Your task to perform on an android device: turn vacation reply on in the gmail app Image 0: 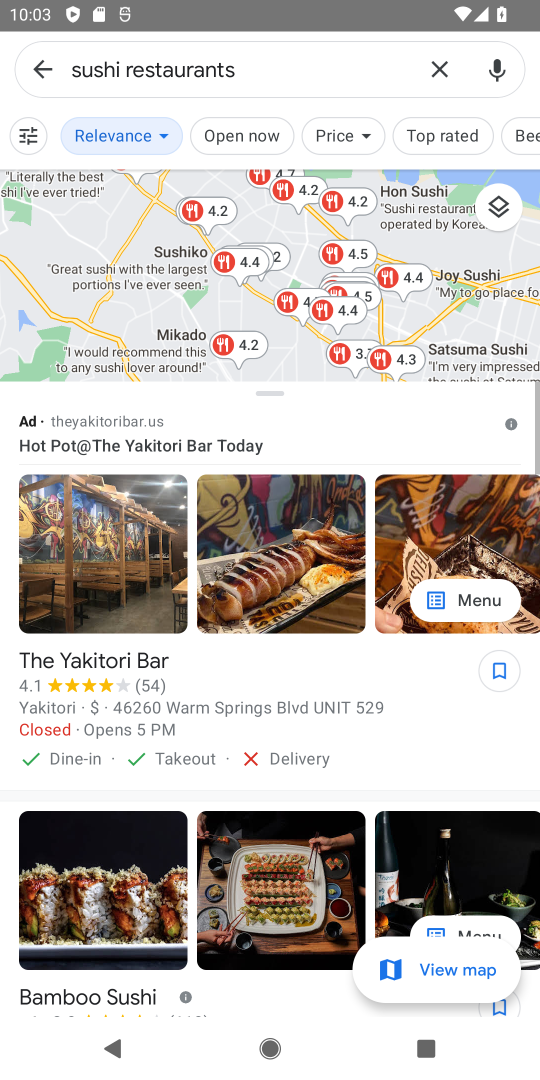
Step 0: press home button
Your task to perform on an android device: turn vacation reply on in the gmail app Image 1: 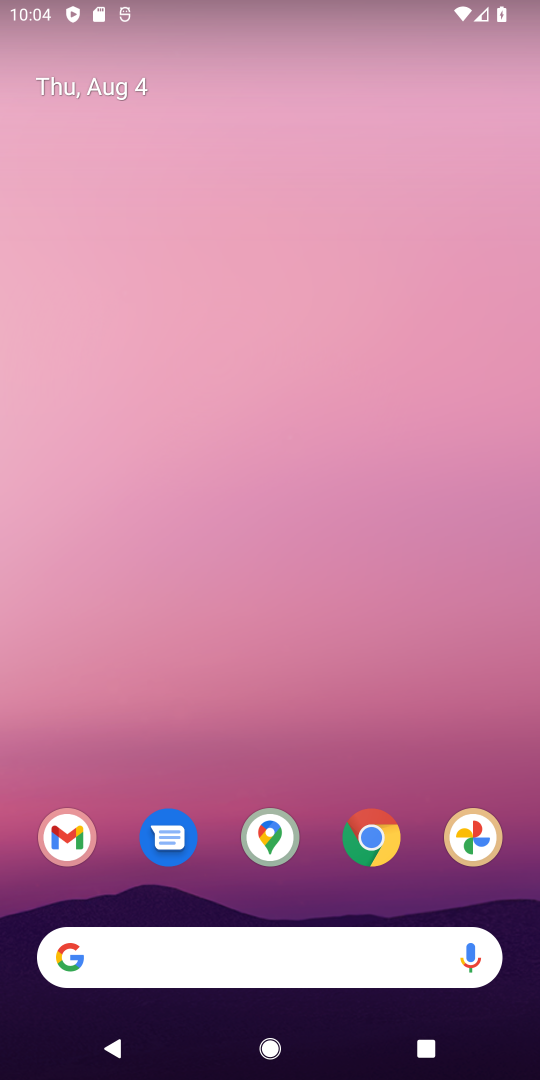
Step 1: drag from (413, 768) to (220, 26)
Your task to perform on an android device: turn vacation reply on in the gmail app Image 2: 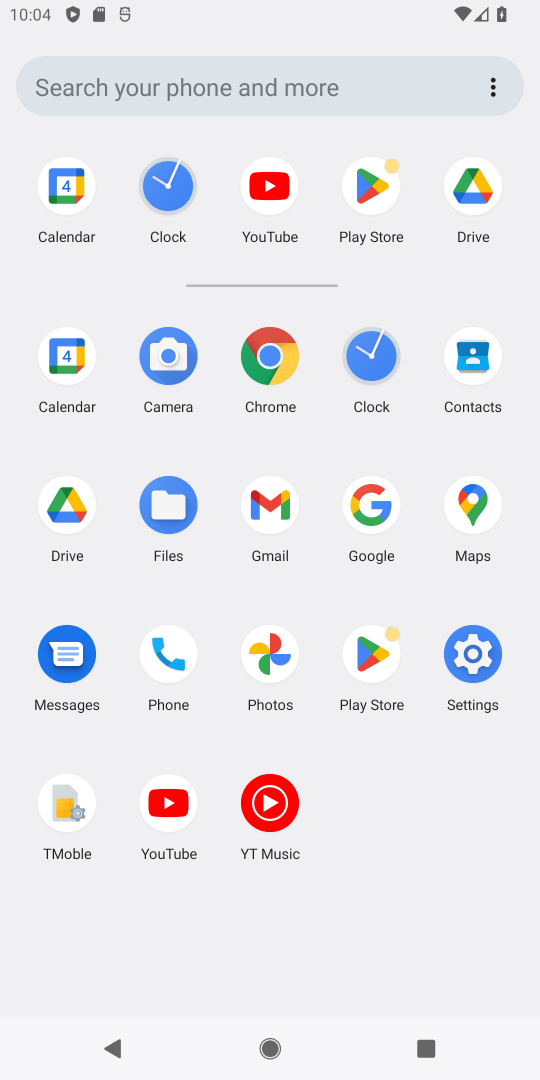
Step 2: click (269, 520)
Your task to perform on an android device: turn vacation reply on in the gmail app Image 3: 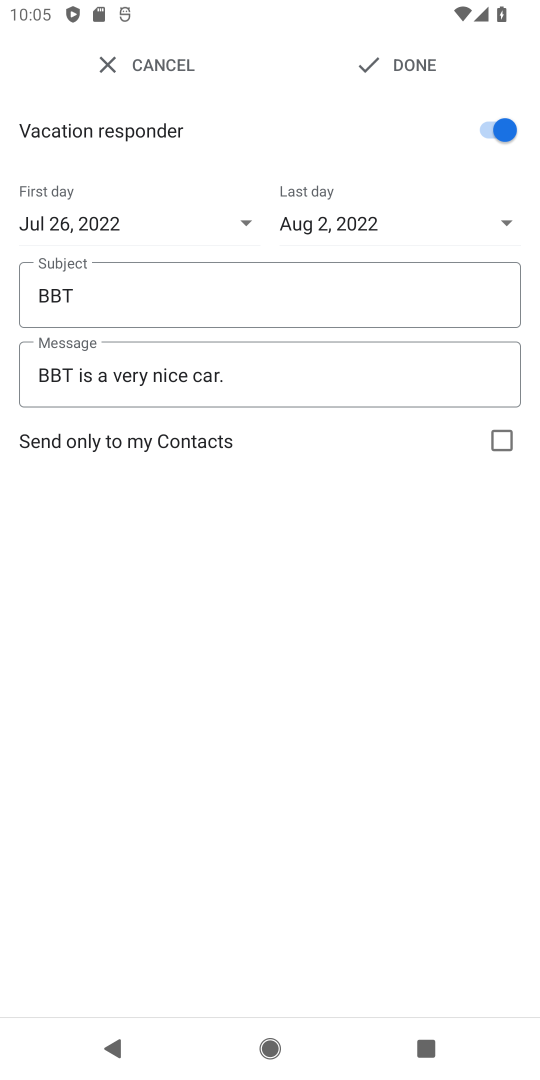
Step 3: task complete